Your task to perform on an android device: turn off location history Image 0: 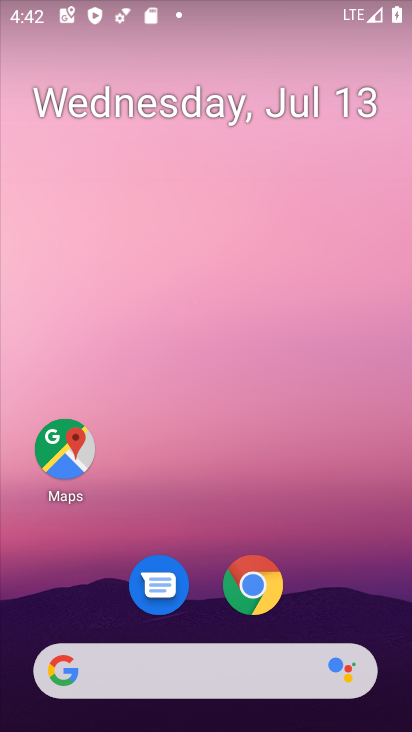
Step 0: drag from (243, 503) to (249, 60)
Your task to perform on an android device: turn off location history Image 1: 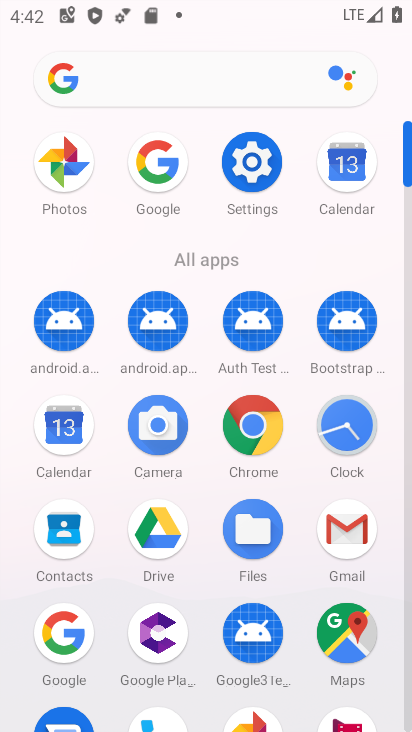
Step 1: click (250, 172)
Your task to perform on an android device: turn off location history Image 2: 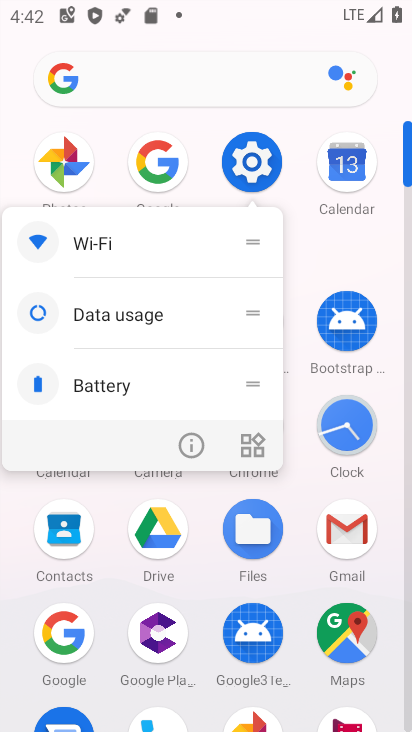
Step 2: click (255, 164)
Your task to perform on an android device: turn off location history Image 3: 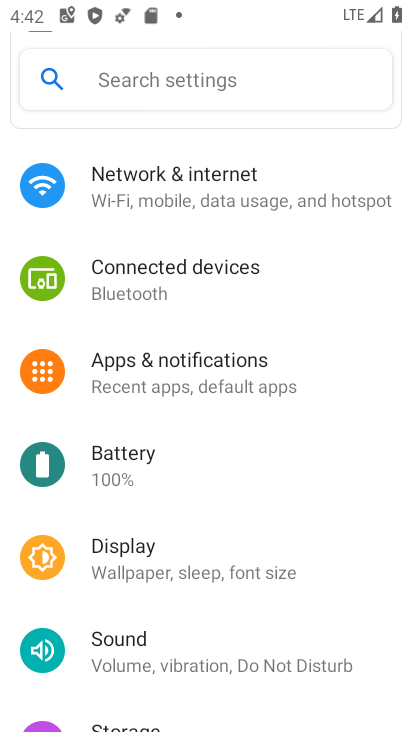
Step 3: drag from (199, 468) to (199, 110)
Your task to perform on an android device: turn off location history Image 4: 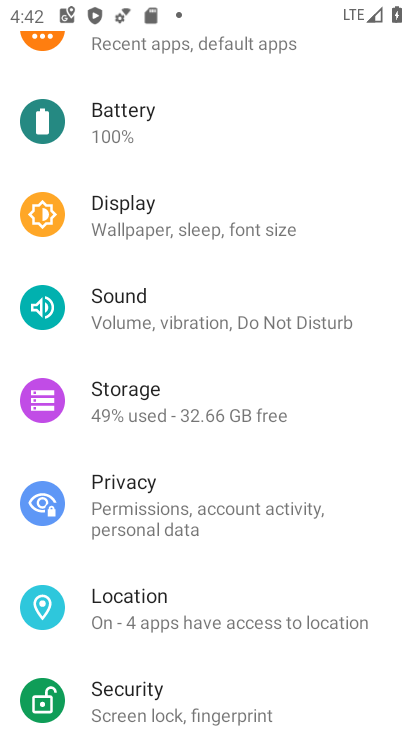
Step 4: click (225, 604)
Your task to perform on an android device: turn off location history Image 5: 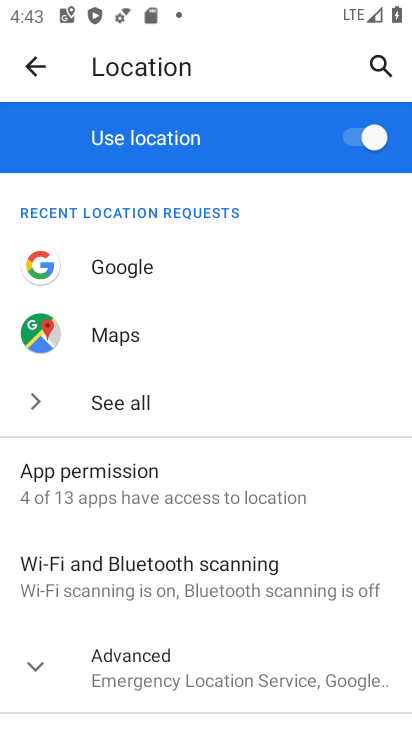
Step 5: click (32, 664)
Your task to perform on an android device: turn off location history Image 6: 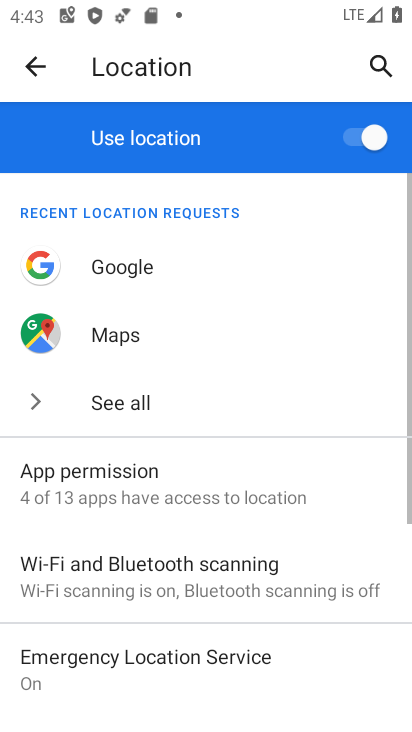
Step 6: drag from (252, 494) to (214, 86)
Your task to perform on an android device: turn off location history Image 7: 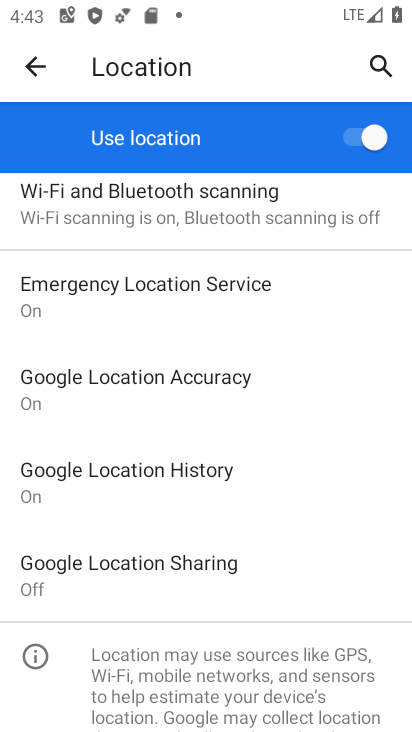
Step 7: click (201, 488)
Your task to perform on an android device: turn off location history Image 8: 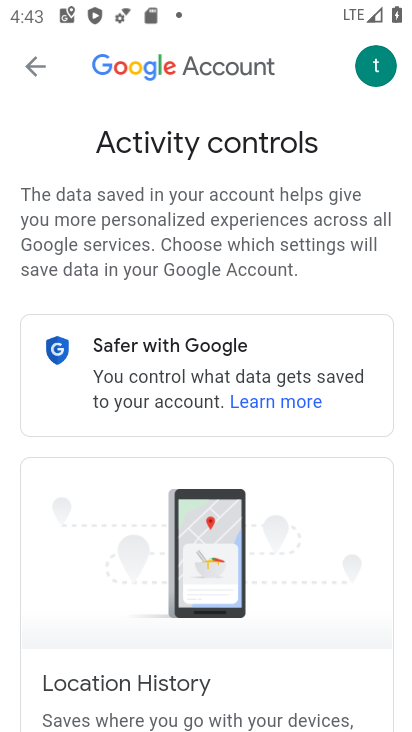
Step 8: drag from (293, 579) to (280, 270)
Your task to perform on an android device: turn off location history Image 9: 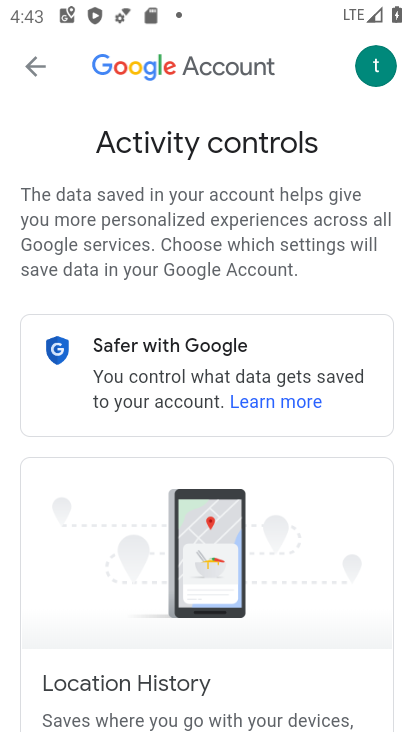
Step 9: drag from (282, 550) to (266, 220)
Your task to perform on an android device: turn off location history Image 10: 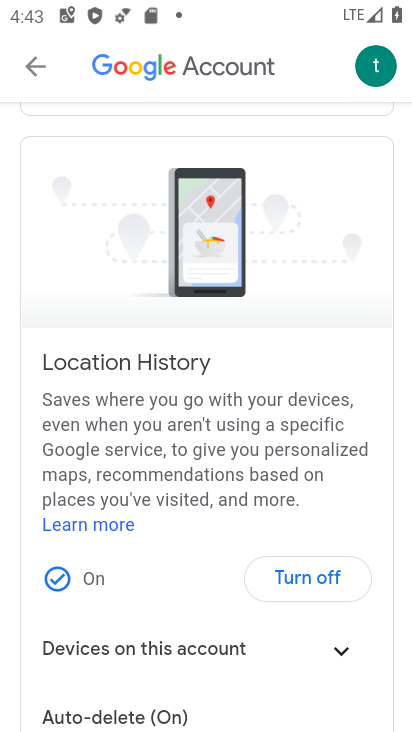
Step 10: click (293, 565)
Your task to perform on an android device: turn off location history Image 11: 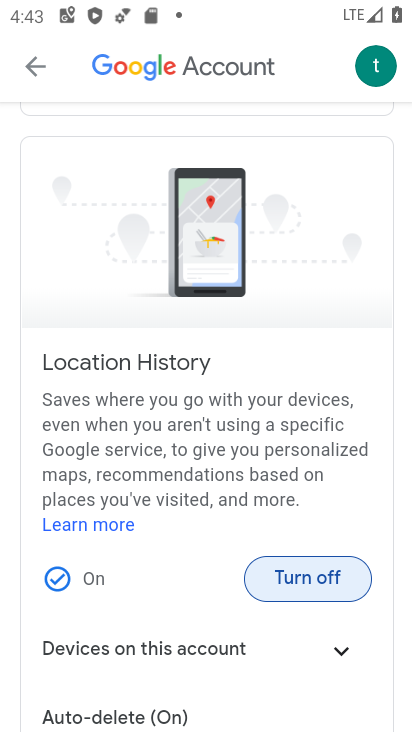
Step 11: click (295, 584)
Your task to perform on an android device: turn off location history Image 12: 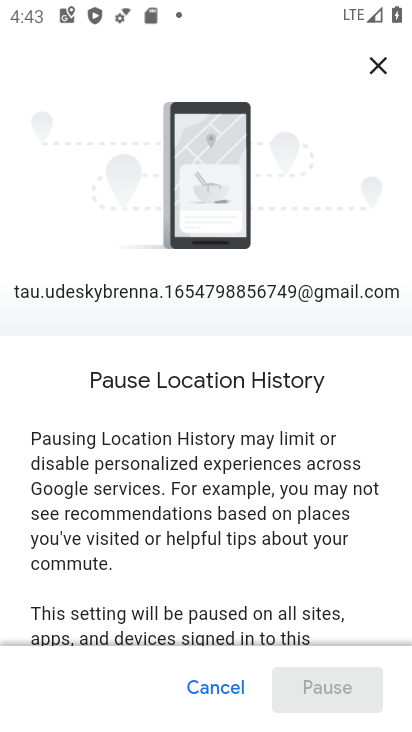
Step 12: drag from (279, 575) to (261, 228)
Your task to perform on an android device: turn off location history Image 13: 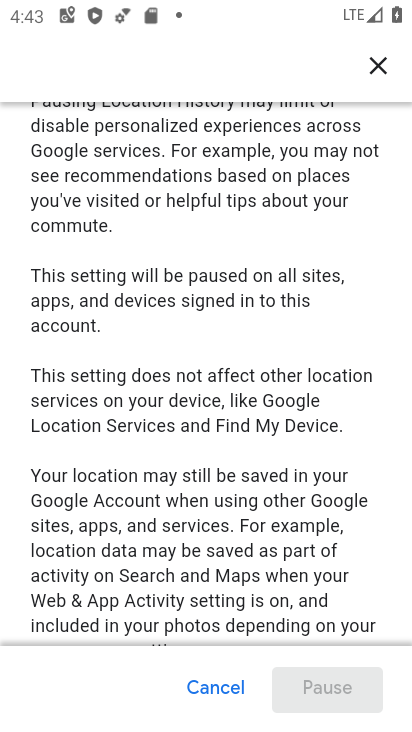
Step 13: drag from (247, 546) to (255, 219)
Your task to perform on an android device: turn off location history Image 14: 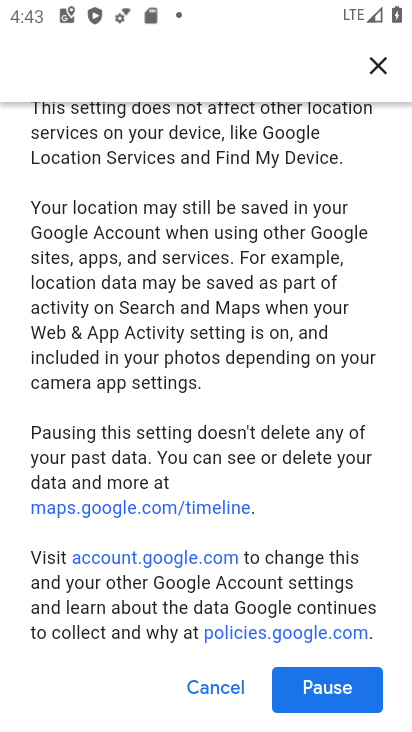
Step 14: click (298, 698)
Your task to perform on an android device: turn off location history Image 15: 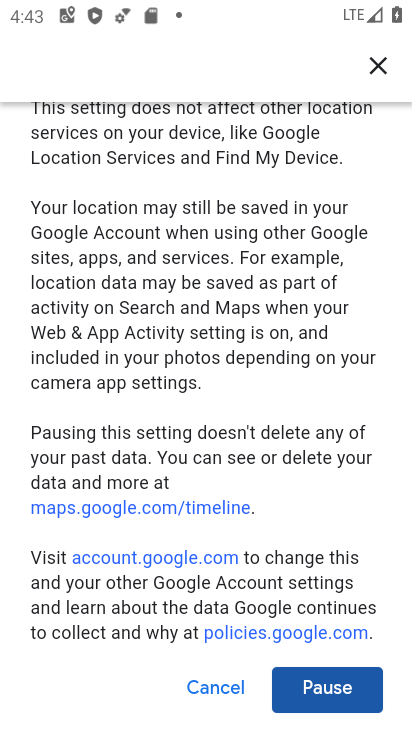
Step 15: click (326, 688)
Your task to perform on an android device: turn off location history Image 16: 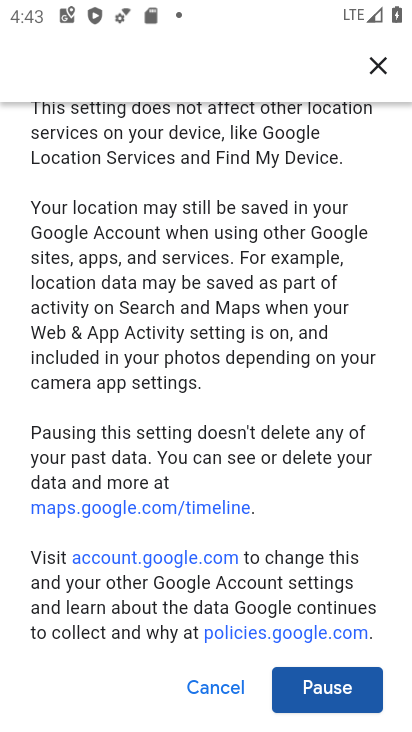
Step 16: click (326, 687)
Your task to perform on an android device: turn off location history Image 17: 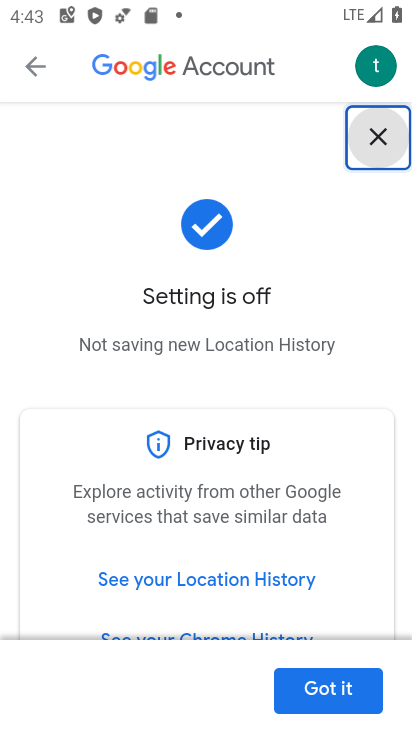
Step 17: click (329, 687)
Your task to perform on an android device: turn off location history Image 18: 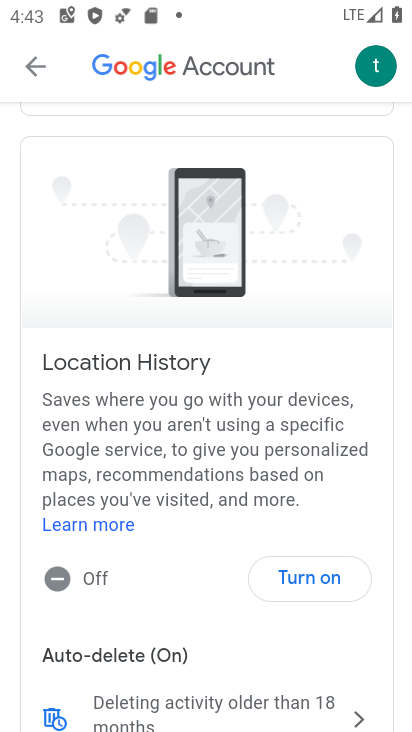
Step 18: task complete